Your task to perform on an android device: toggle improve location accuracy Image 0: 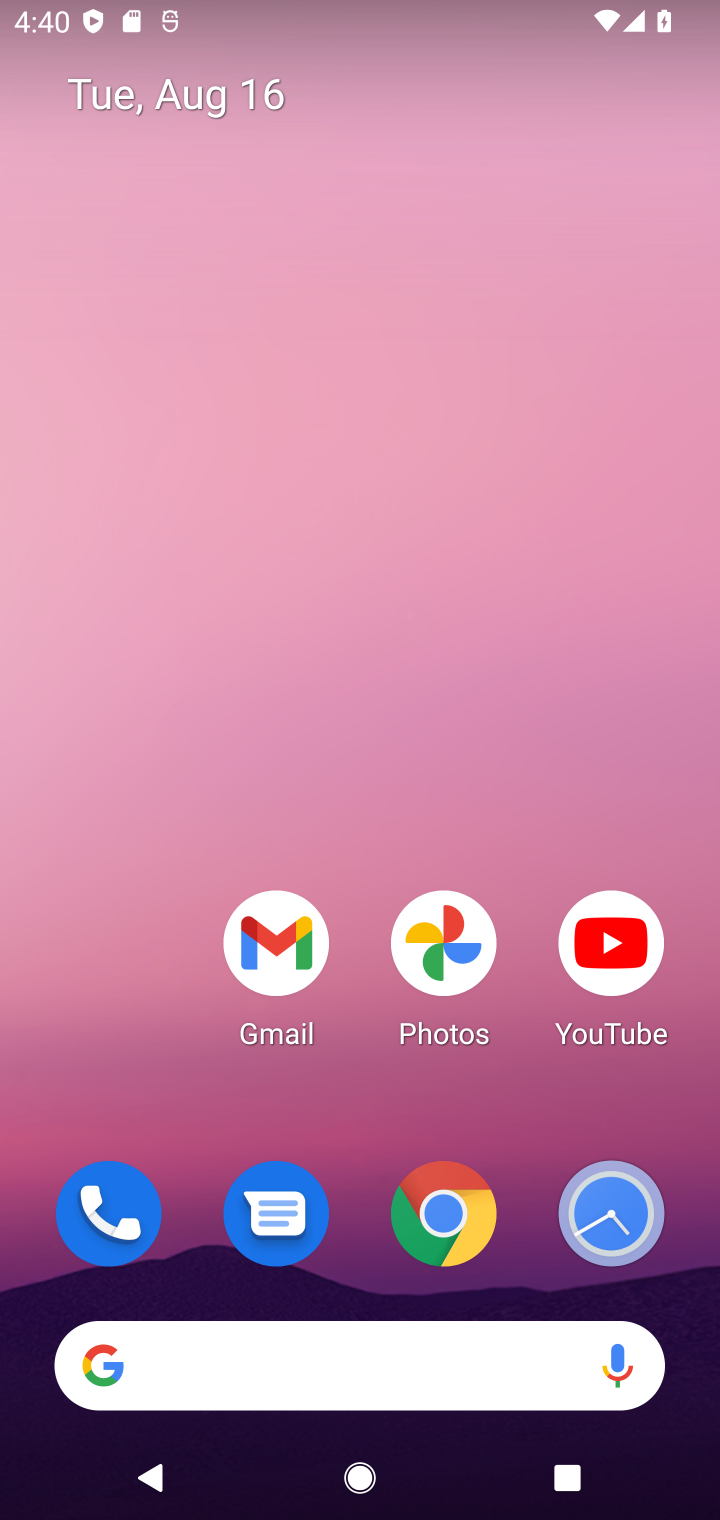
Step 0: drag from (361, 1082) to (264, 22)
Your task to perform on an android device: toggle improve location accuracy Image 1: 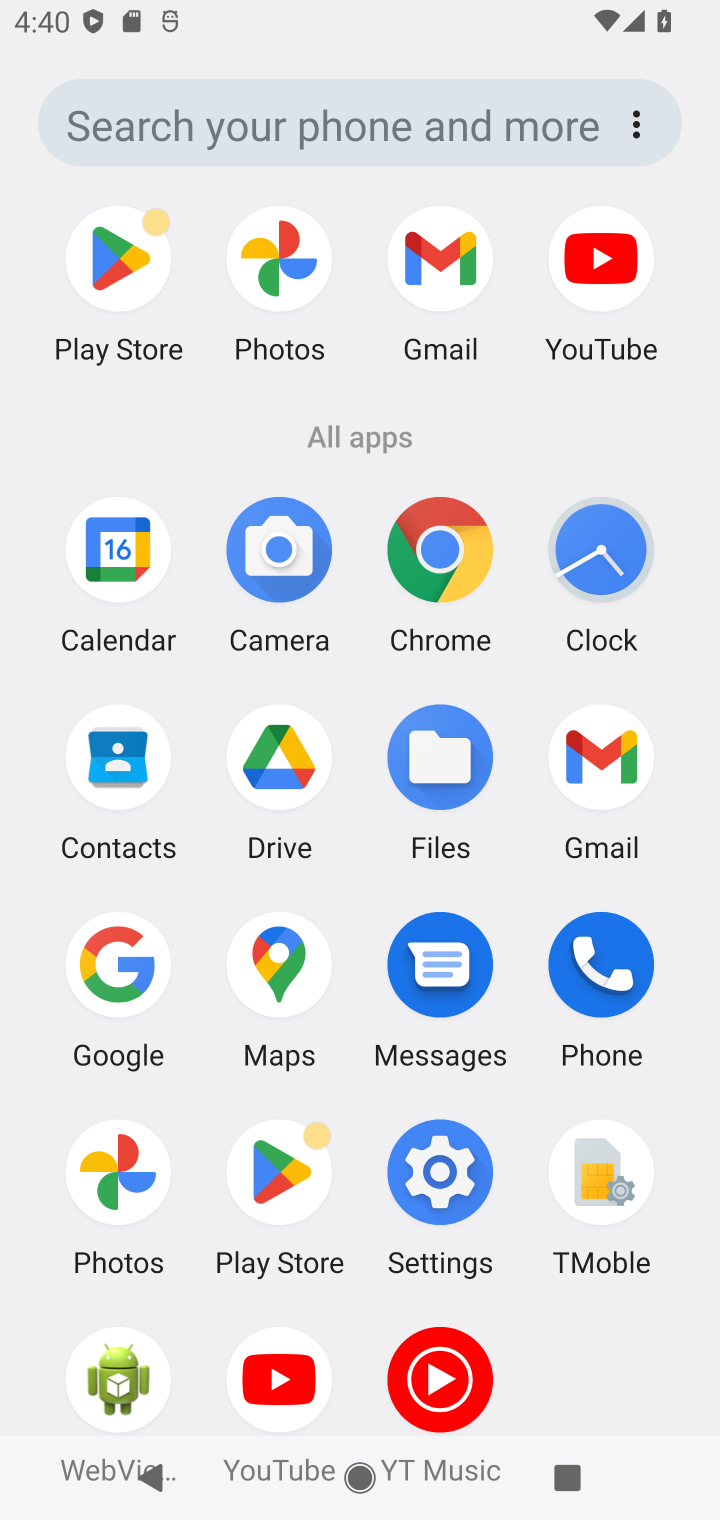
Step 1: click (440, 1169)
Your task to perform on an android device: toggle improve location accuracy Image 2: 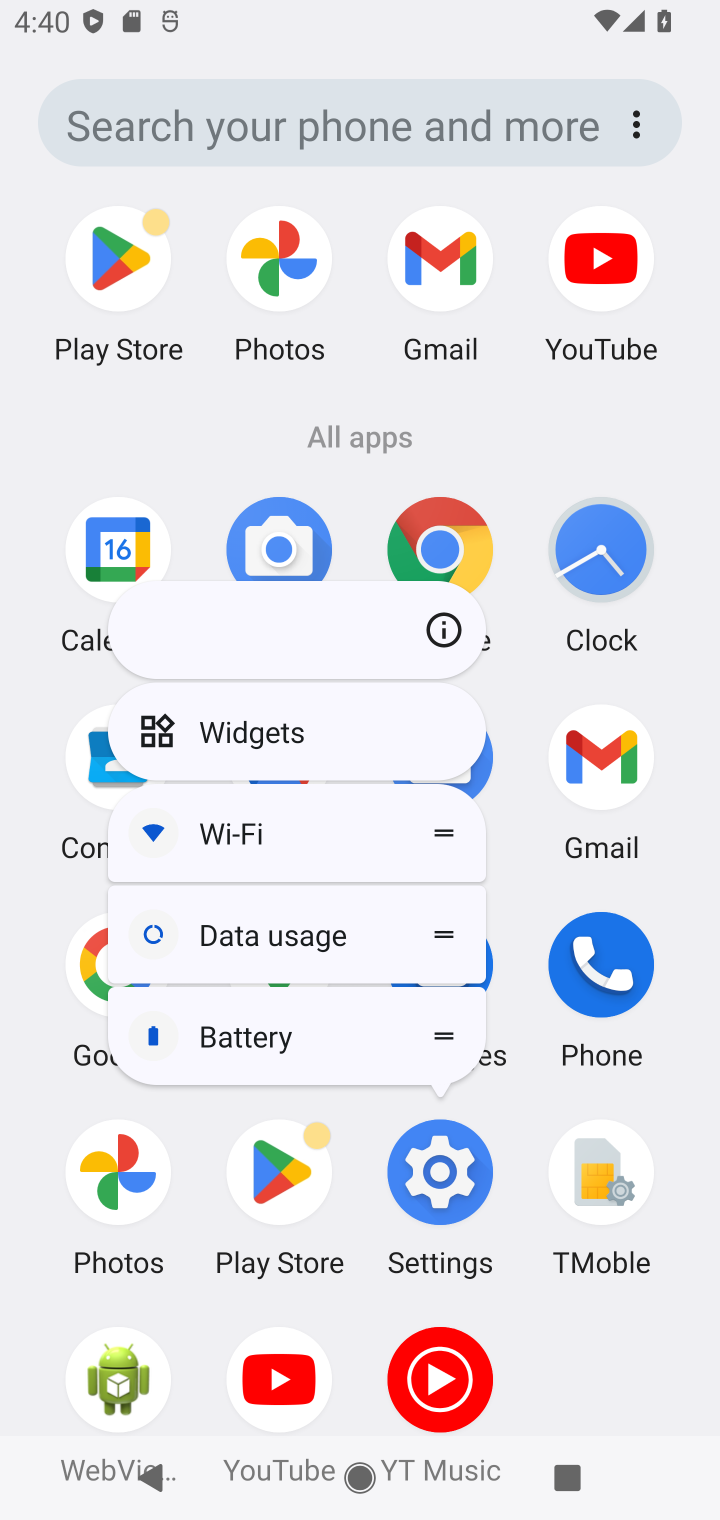
Step 2: click (459, 1177)
Your task to perform on an android device: toggle improve location accuracy Image 3: 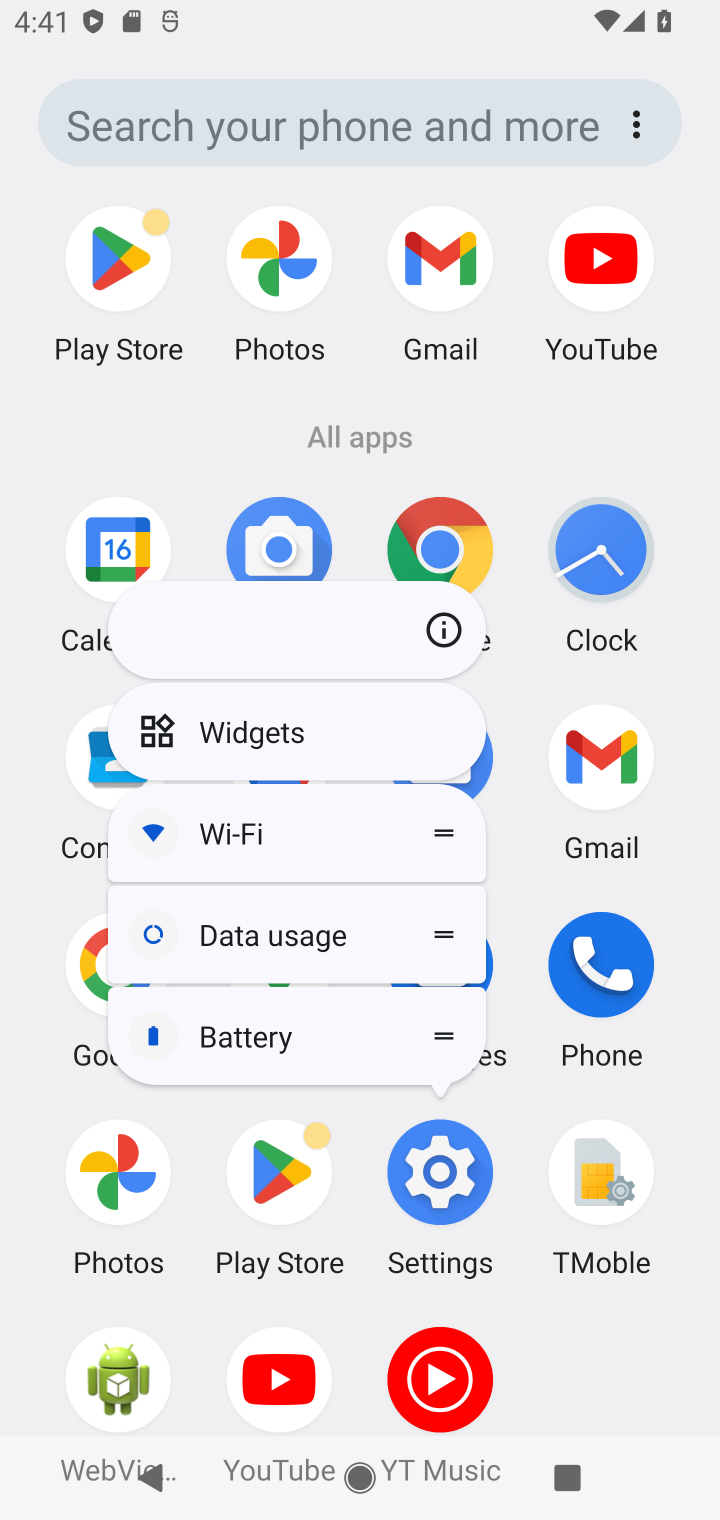
Step 3: click (459, 1180)
Your task to perform on an android device: toggle improve location accuracy Image 4: 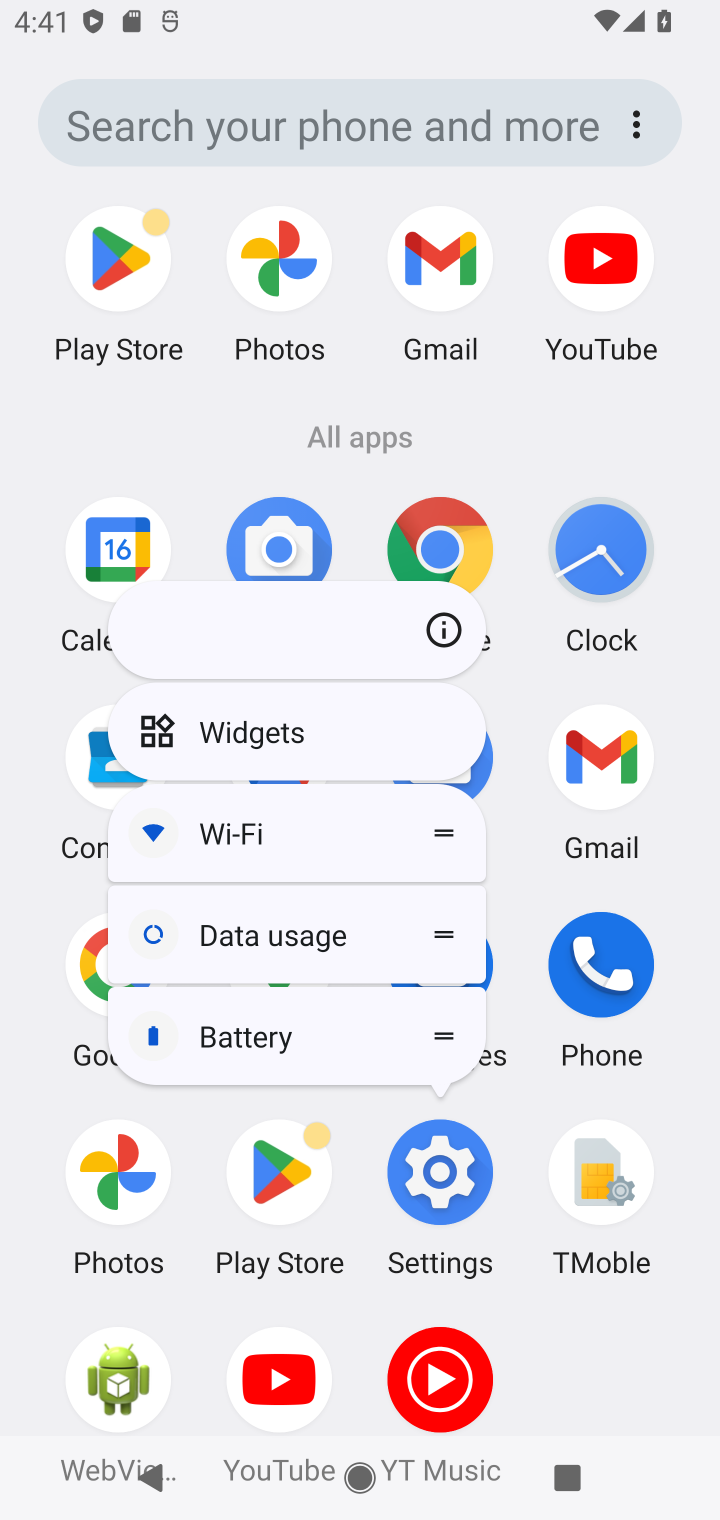
Step 4: click (436, 1180)
Your task to perform on an android device: toggle improve location accuracy Image 5: 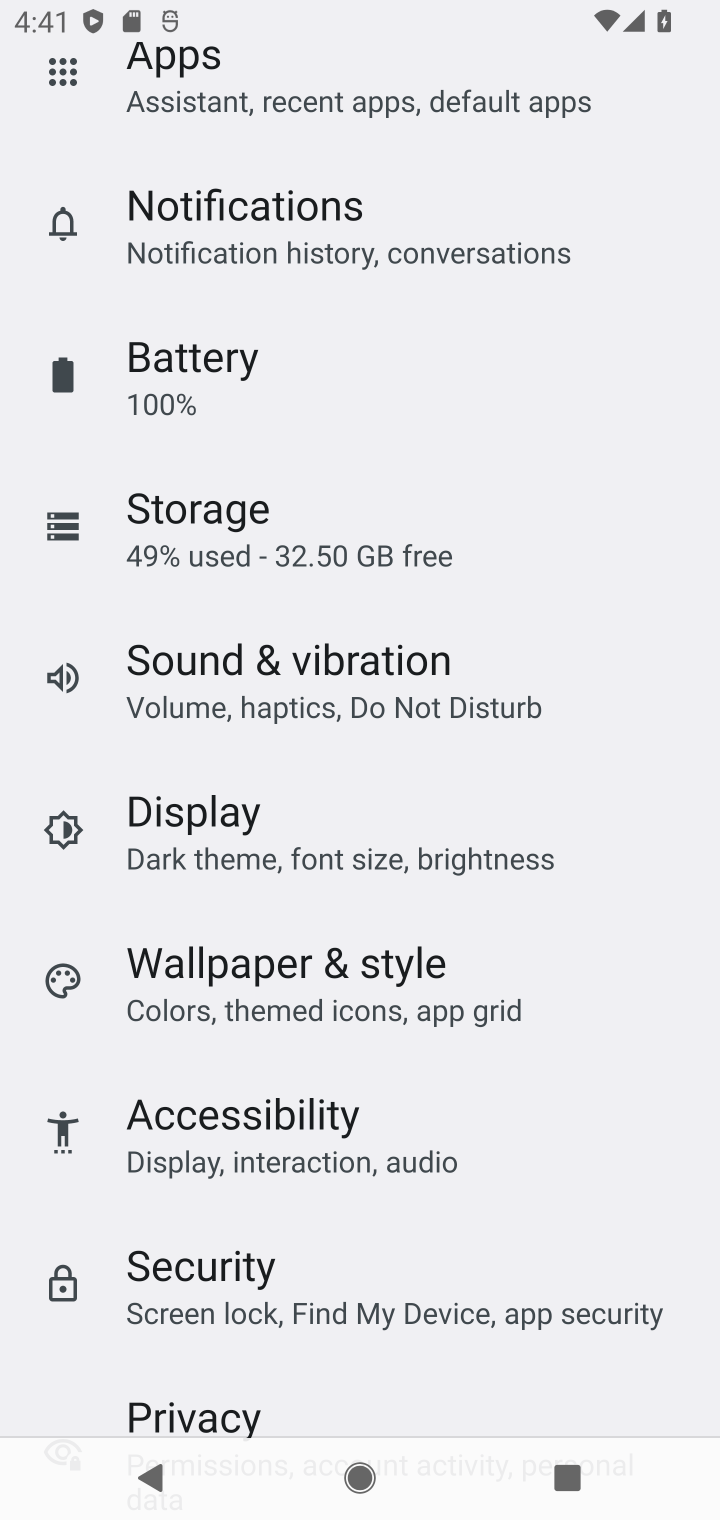
Step 5: click (465, 328)
Your task to perform on an android device: toggle improve location accuracy Image 6: 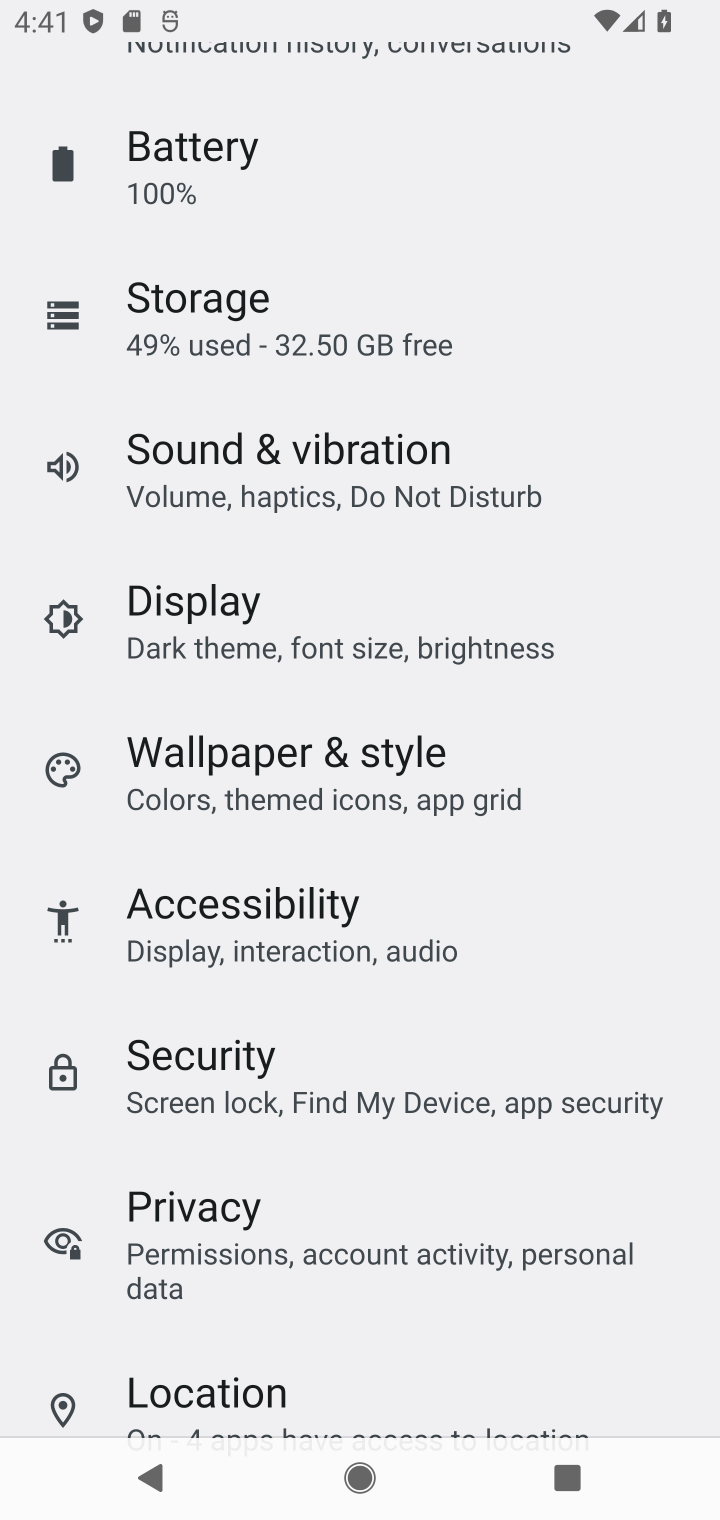
Step 6: click (201, 1379)
Your task to perform on an android device: toggle improve location accuracy Image 7: 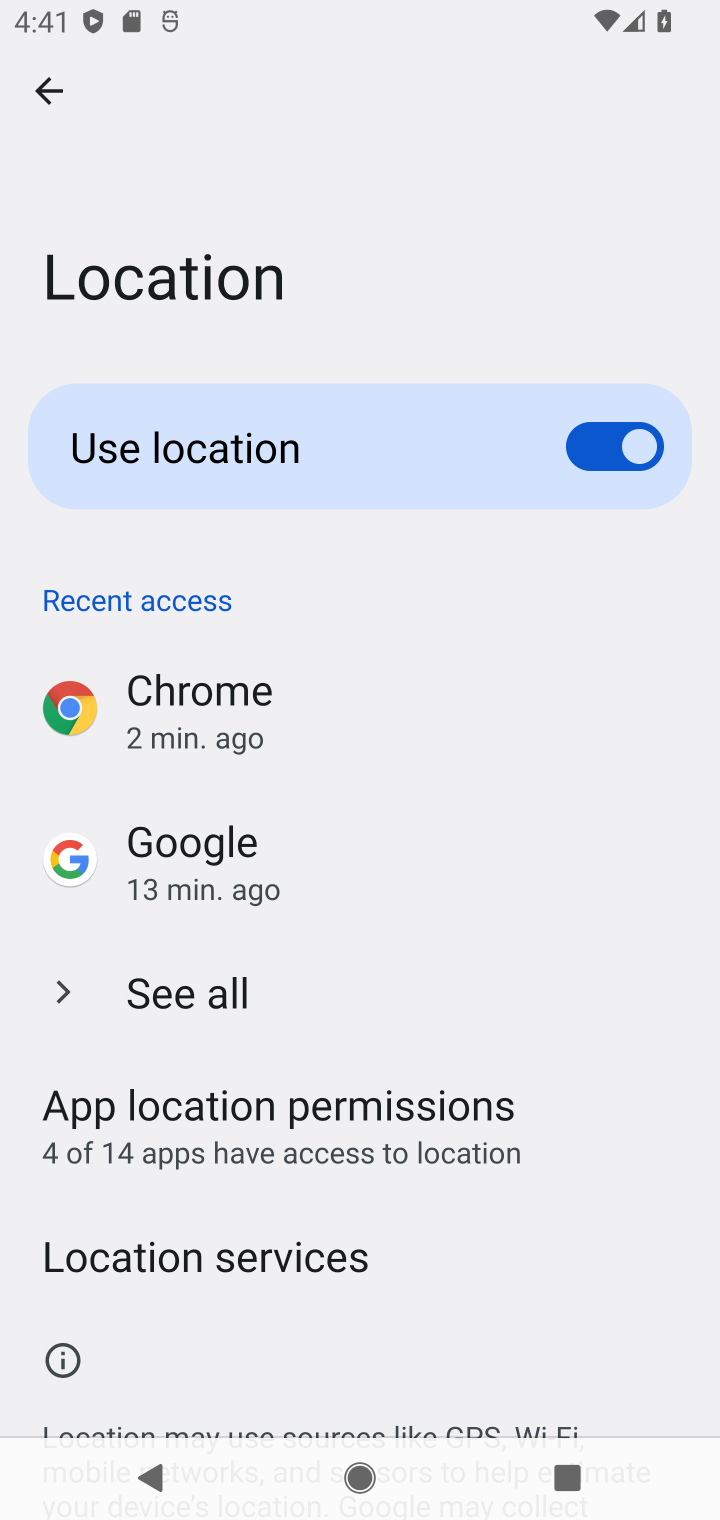
Step 7: drag from (401, 1289) to (415, 775)
Your task to perform on an android device: toggle improve location accuracy Image 8: 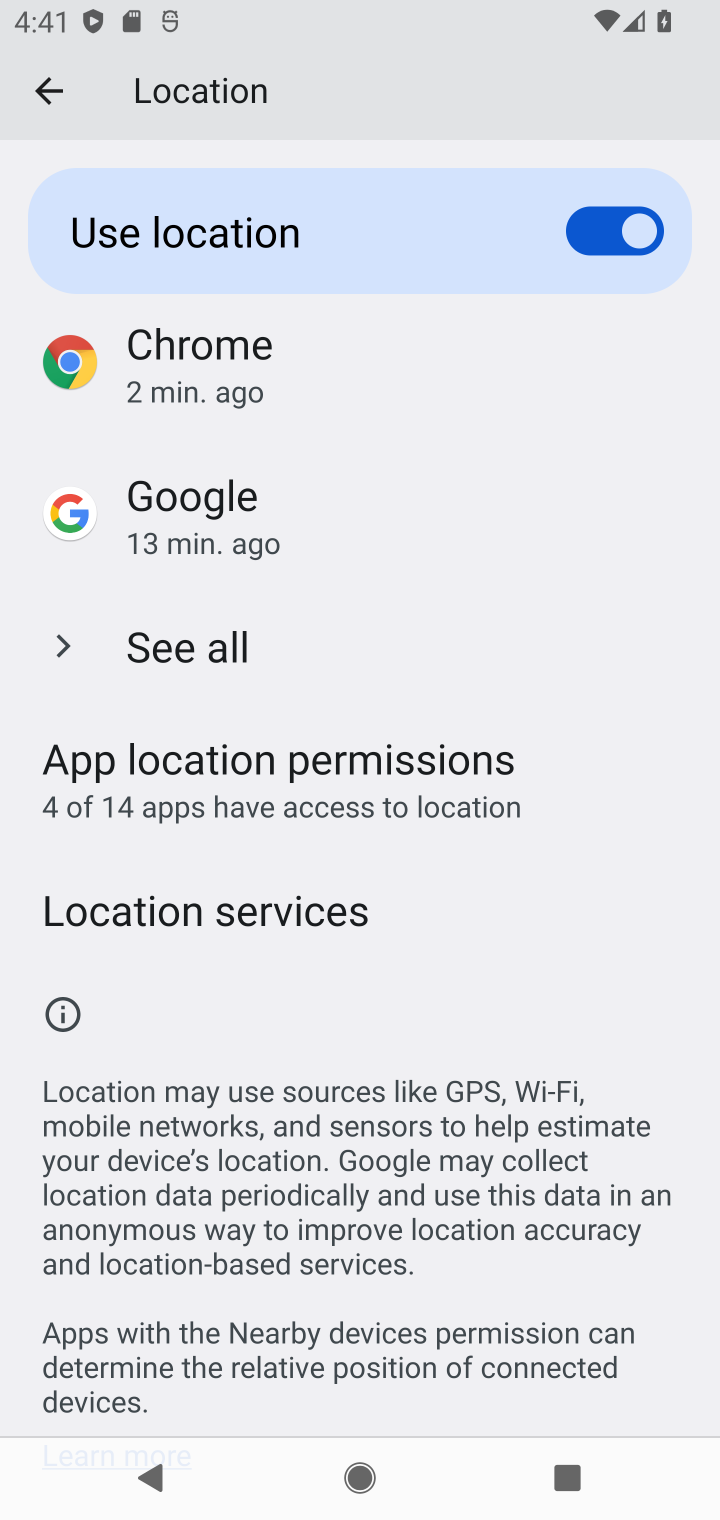
Step 8: click (309, 907)
Your task to perform on an android device: toggle improve location accuracy Image 9: 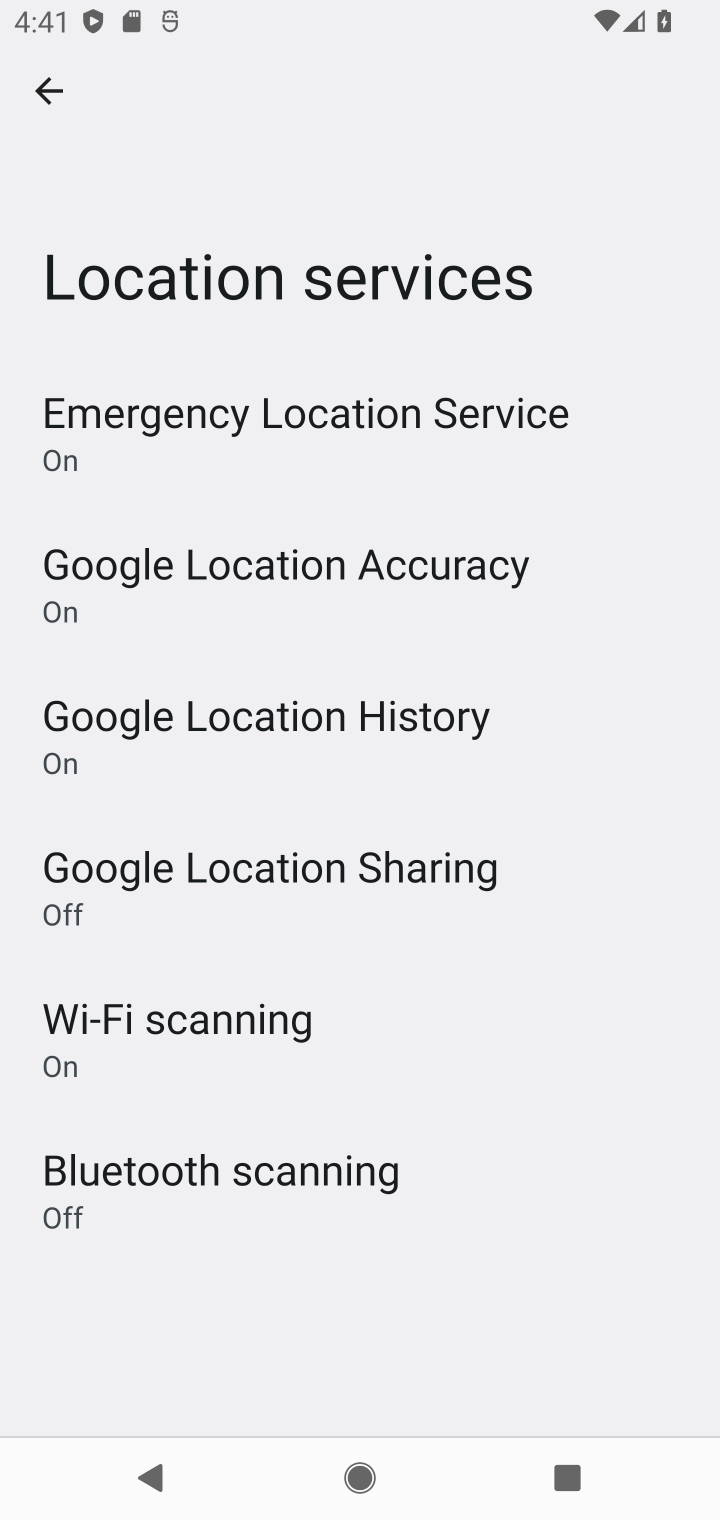
Step 9: click (446, 575)
Your task to perform on an android device: toggle improve location accuracy Image 10: 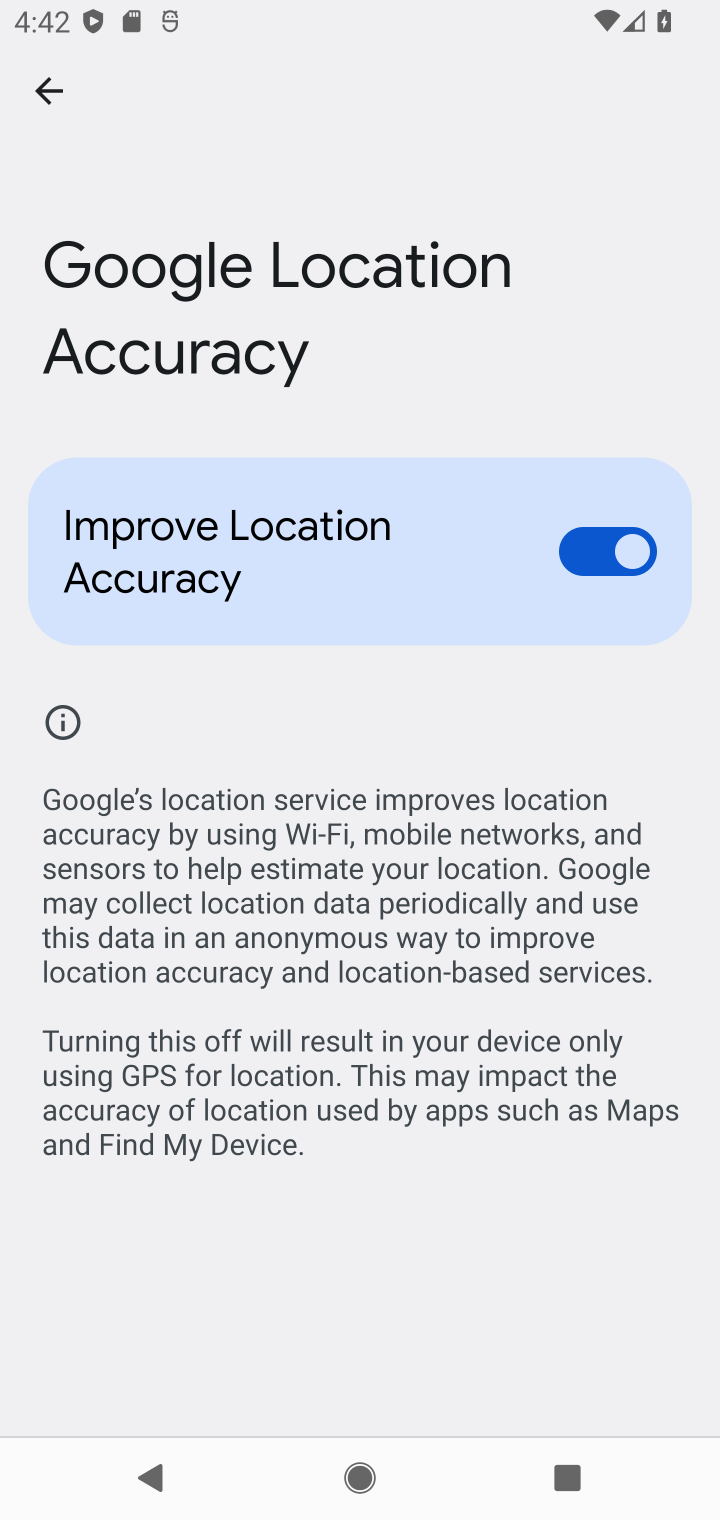
Step 10: click (607, 593)
Your task to perform on an android device: toggle improve location accuracy Image 11: 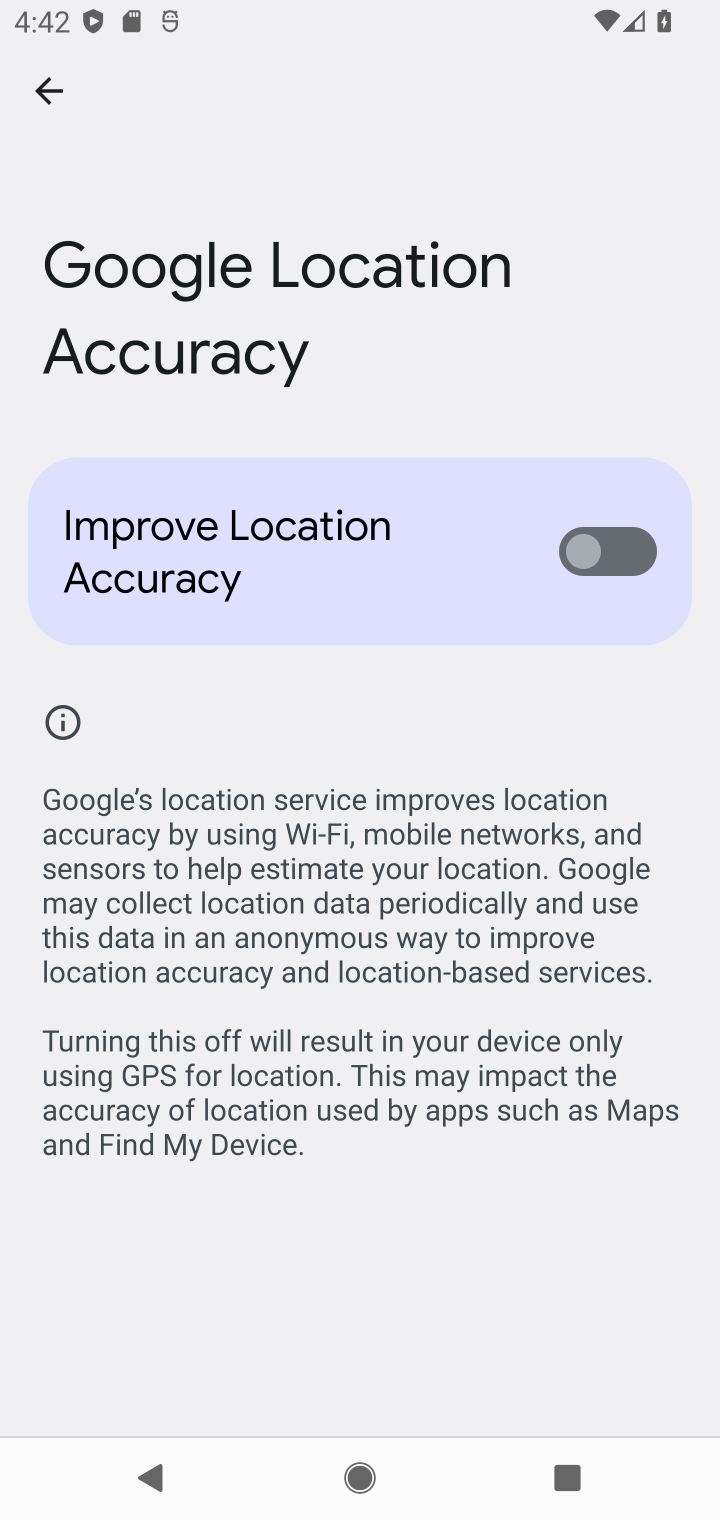
Step 11: task complete